Your task to perform on an android device: Go to privacy settings Image 0: 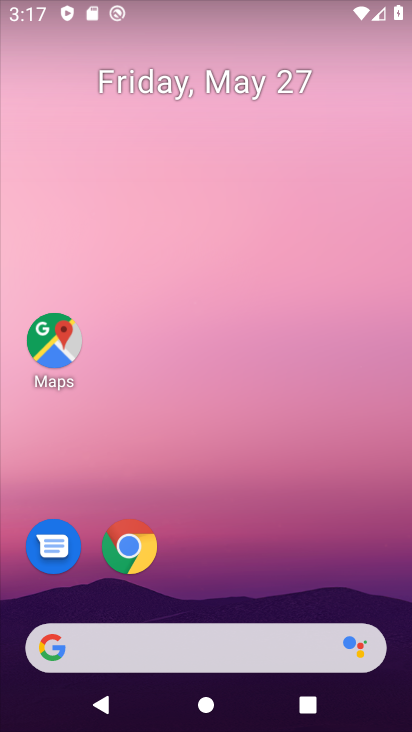
Step 0: drag from (199, 567) to (289, 154)
Your task to perform on an android device: Go to privacy settings Image 1: 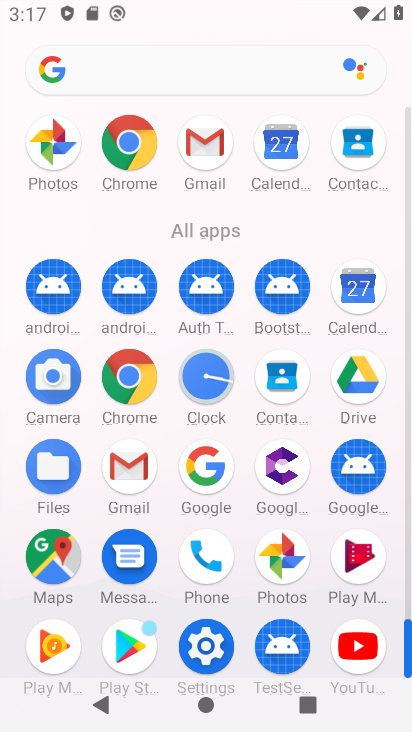
Step 1: click (133, 370)
Your task to perform on an android device: Go to privacy settings Image 2: 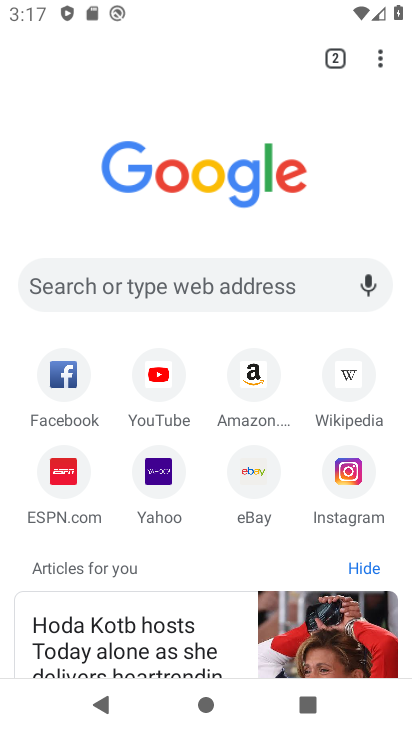
Step 2: drag from (381, 55) to (270, 489)
Your task to perform on an android device: Go to privacy settings Image 3: 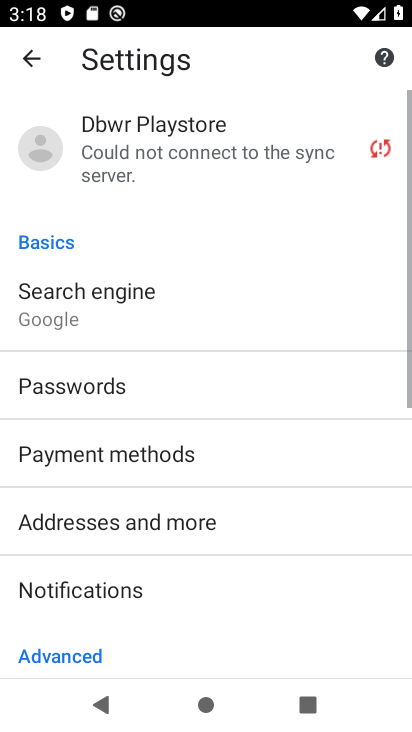
Step 3: drag from (191, 585) to (293, 236)
Your task to perform on an android device: Go to privacy settings Image 4: 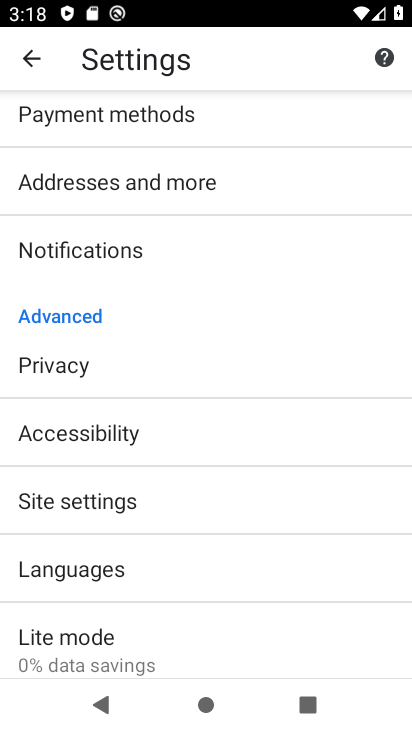
Step 4: click (96, 363)
Your task to perform on an android device: Go to privacy settings Image 5: 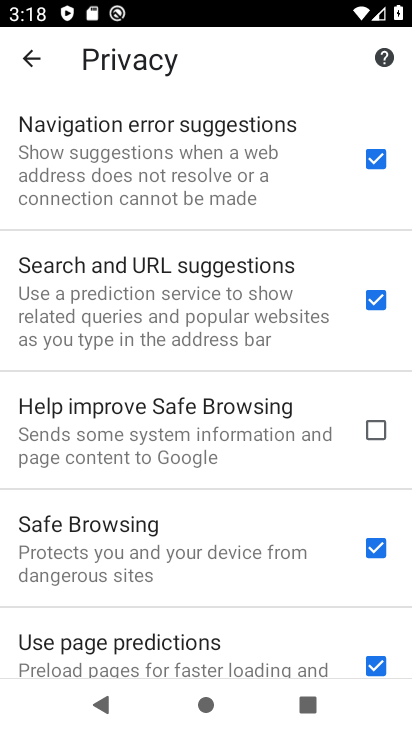
Step 5: task complete